Your task to perform on an android device: Clear the cart on walmart. Add "usb-b" to the cart on walmart Image 0: 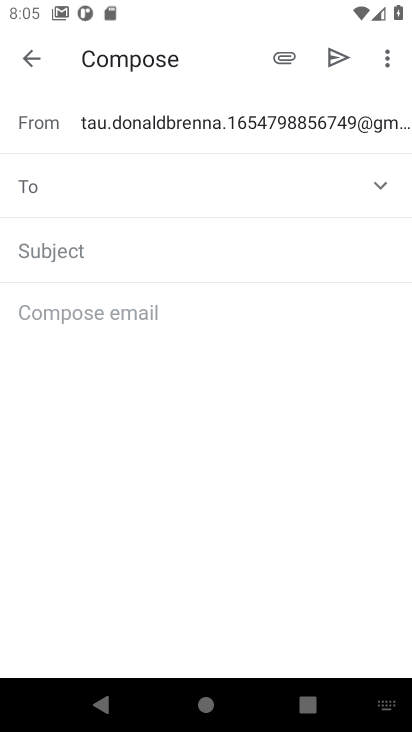
Step 0: press home button
Your task to perform on an android device: Clear the cart on walmart. Add "usb-b" to the cart on walmart Image 1: 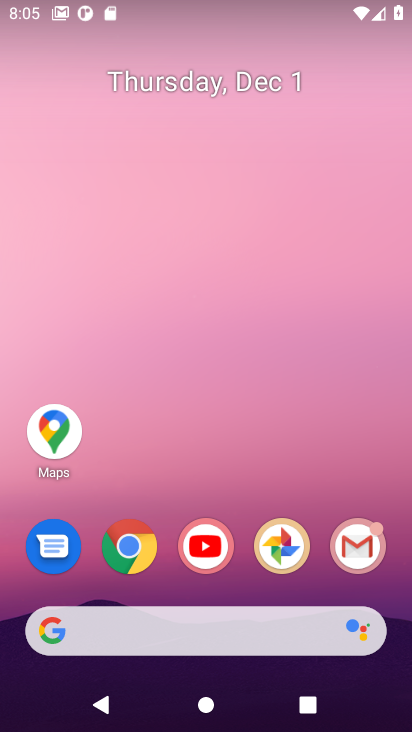
Step 1: click (127, 539)
Your task to perform on an android device: Clear the cart on walmart. Add "usb-b" to the cart on walmart Image 2: 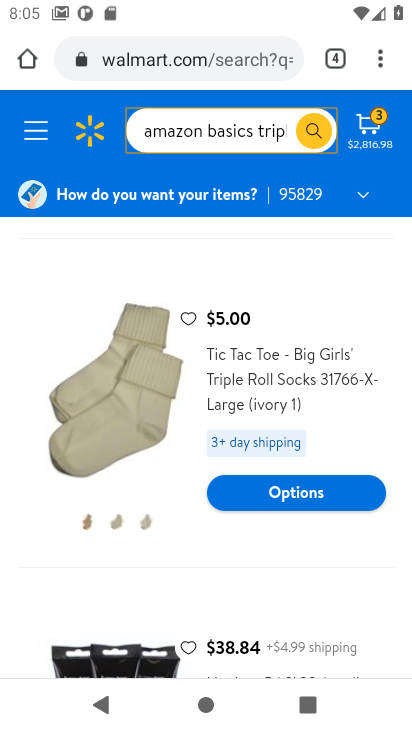
Step 2: click (370, 136)
Your task to perform on an android device: Clear the cart on walmart. Add "usb-b" to the cart on walmart Image 3: 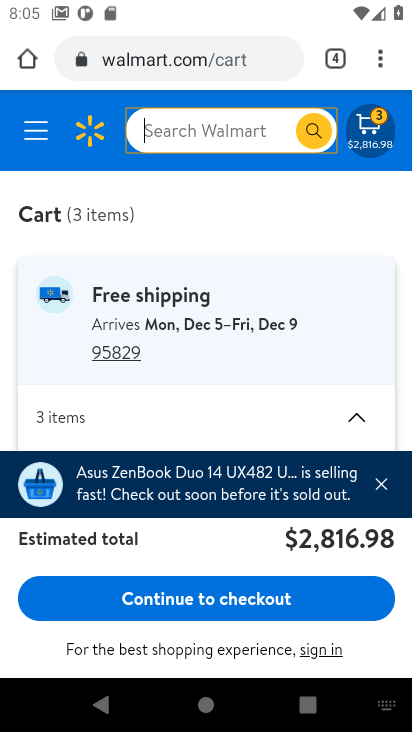
Step 3: drag from (189, 346) to (194, 140)
Your task to perform on an android device: Clear the cart on walmart. Add "usb-b" to the cart on walmart Image 4: 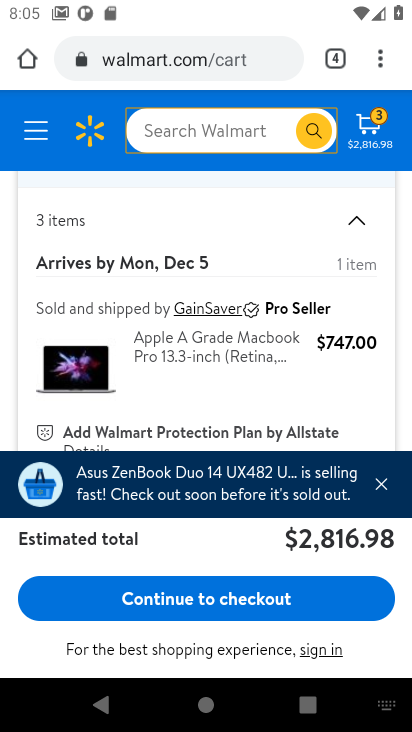
Step 4: drag from (179, 363) to (185, 195)
Your task to perform on an android device: Clear the cart on walmart. Add "usb-b" to the cart on walmart Image 5: 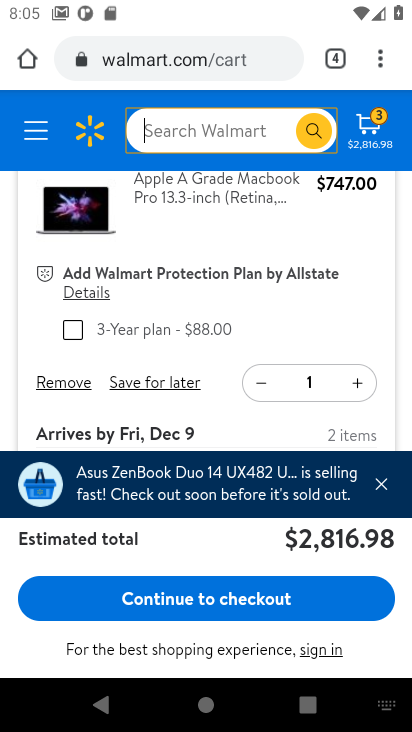
Step 5: click (59, 383)
Your task to perform on an android device: Clear the cart on walmart. Add "usb-b" to the cart on walmart Image 6: 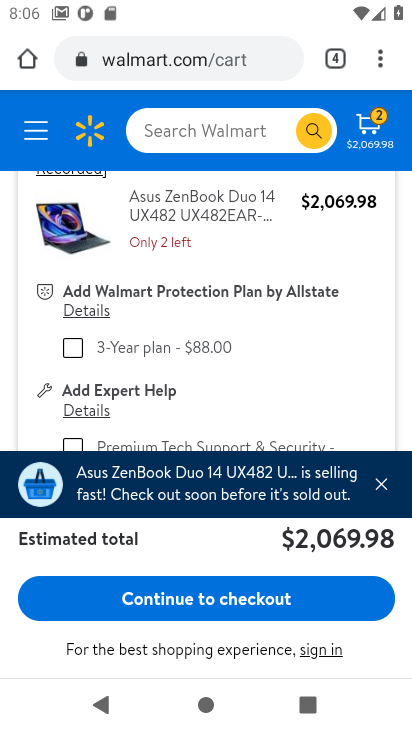
Step 6: drag from (226, 394) to (227, 247)
Your task to perform on an android device: Clear the cart on walmart. Add "usb-b" to the cart on walmart Image 7: 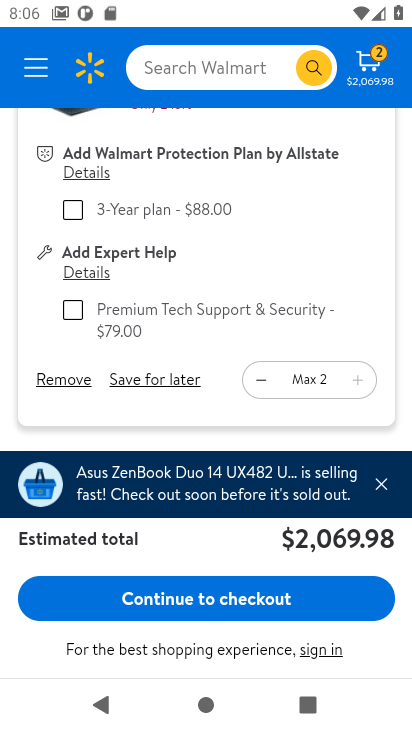
Step 7: click (57, 381)
Your task to perform on an android device: Clear the cart on walmart. Add "usb-b" to the cart on walmart Image 8: 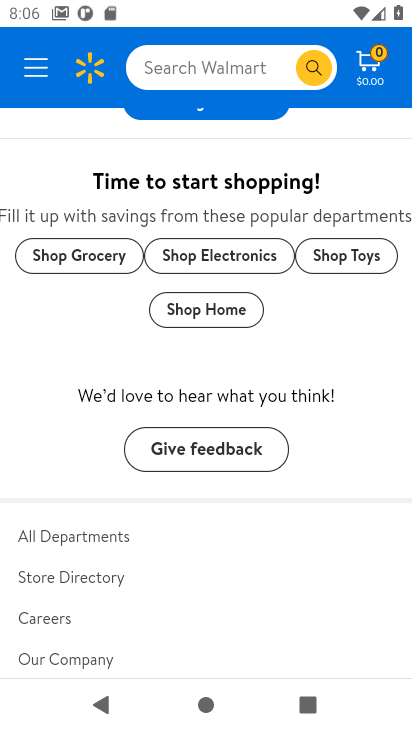
Step 8: click (190, 74)
Your task to perform on an android device: Clear the cart on walmart. Add "usb-b" to the cart on walmart Image 9: 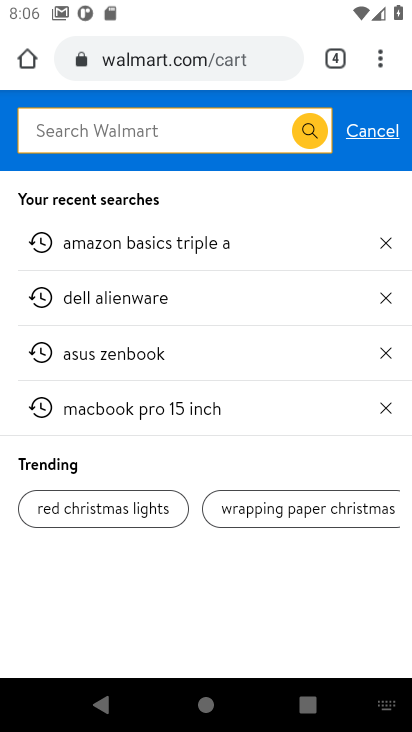
Step 9: type "usb-b"
Your task to perform on an android device: Clear the cart on walmart. Add "usb-b" to the cart on walmart Image 10: 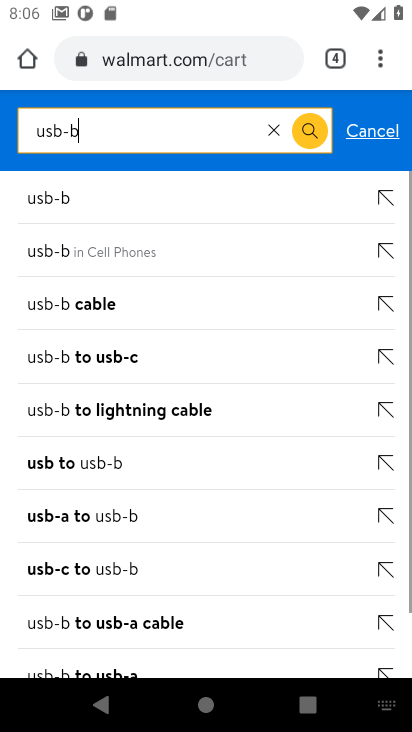
Step 10: click (51, 204)
Your task to perform on an android device: Clear the cart on walmart. Add "usb-b" to the cart on walmart Image 11: 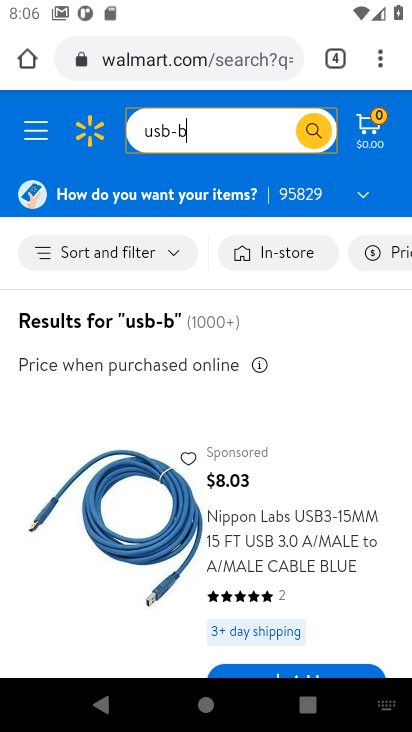
Step 11: drag from (178, 539) to (179, 411)
Your task to perform on an android device: Clear the cart on walmart. Add "usb-b" to the cart on walmart Image 12: 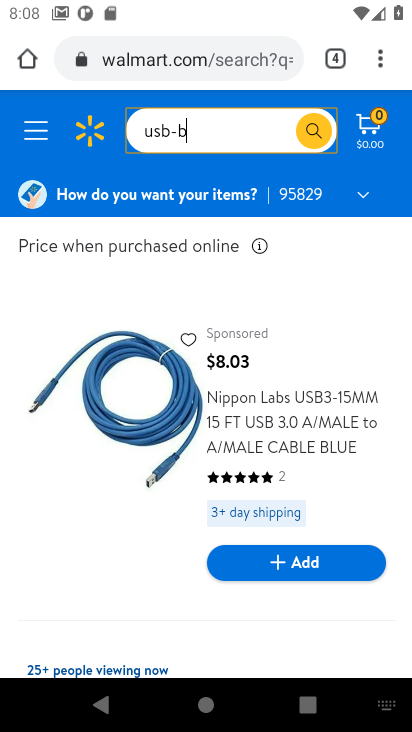
Step 12: drag from (152, 427) to (165, 317)
Your task to perform on an android device: Clear the cart on walmart. Add "usb-b" to the cart on walmart Image 13: 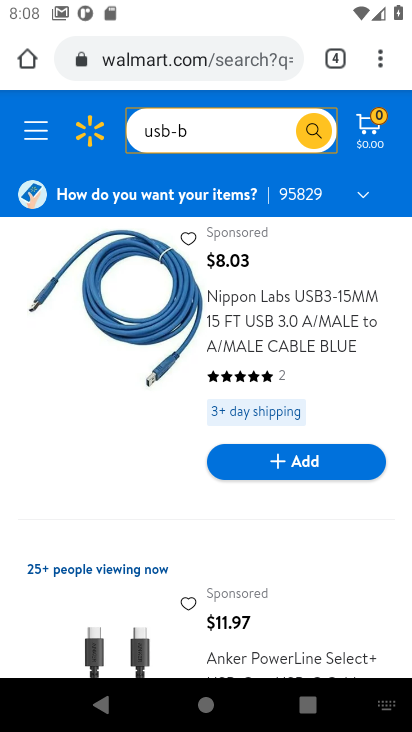
Step 13: drag from (141, 448) to (155, 253)
Your task to perform on an android device: Clear the cart on walmart. Add "usb-b" to the cart on walmart Image 14: 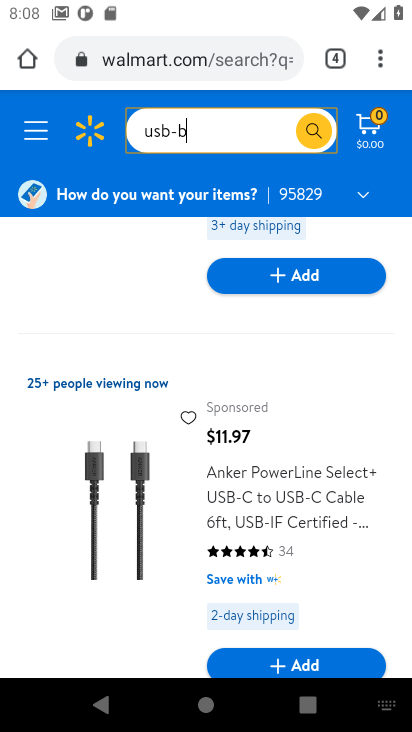
Step 14: drag from (131, 443) to (131, 260)
Your task to perform on an android device: Clear the cart on walmart. Add "usb-b" to the cart on walmart Image 15: 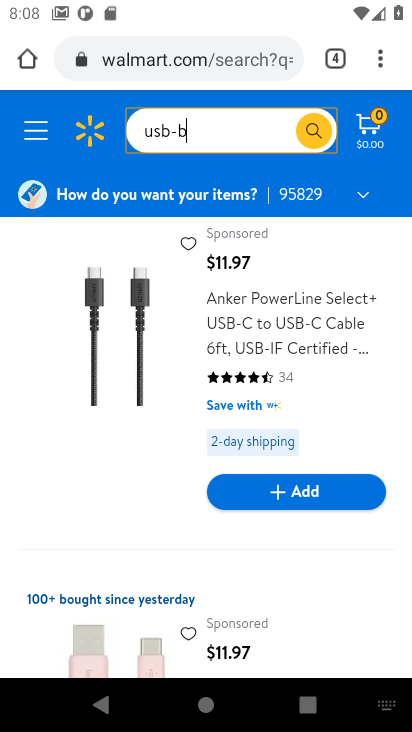
Step 15: drag from (145, 488) to (133, 221)
Your task to perform on an android device: Clear the cart on walmart. Add "usb-b" to the cart on walmart Image 16: 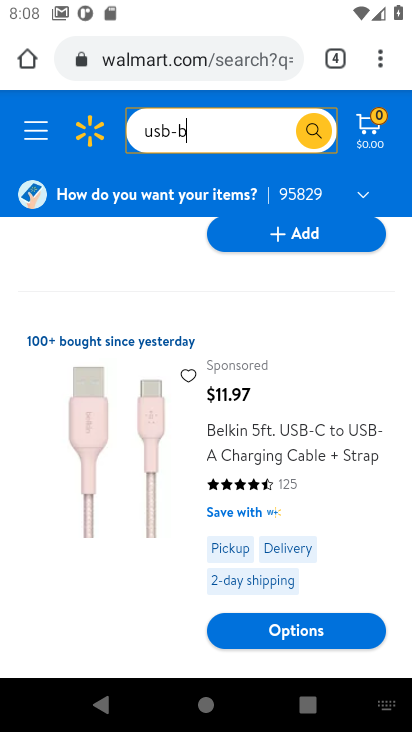
Step 16: drag from (122, 455) to (129, 289)
Your task to perform on an android device: Clear the cart on walmart. Add "usb-b" to the cart on walmart Image 17: 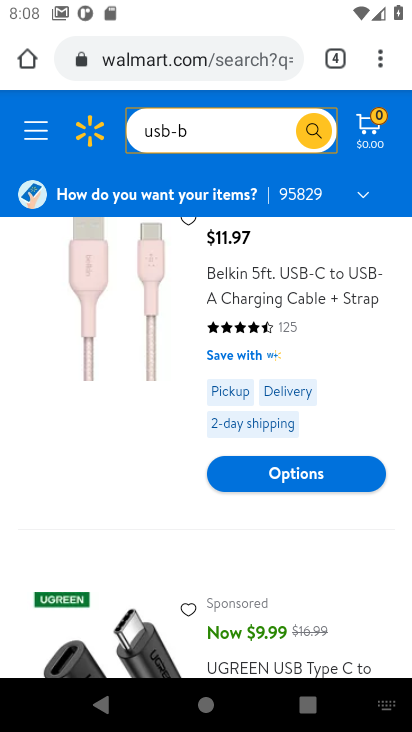
Step 17: drag from (129, 462) to (123, 258)
Your task to perform on an android device: Clear the cart on walmart. Add "usb-b" to the cart on walmart Image 18: 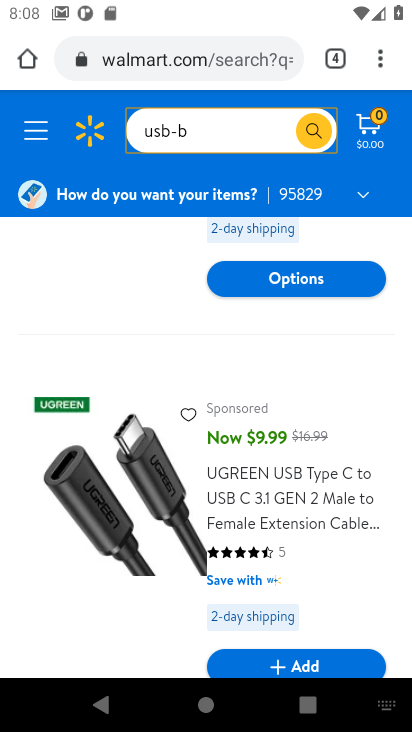
Step 18: drag from (101, 470) to (105, 236)
Your task to perform on an android device: Clear the cart on walmart. Add "usb-b" to the cart on walmart Image 19: 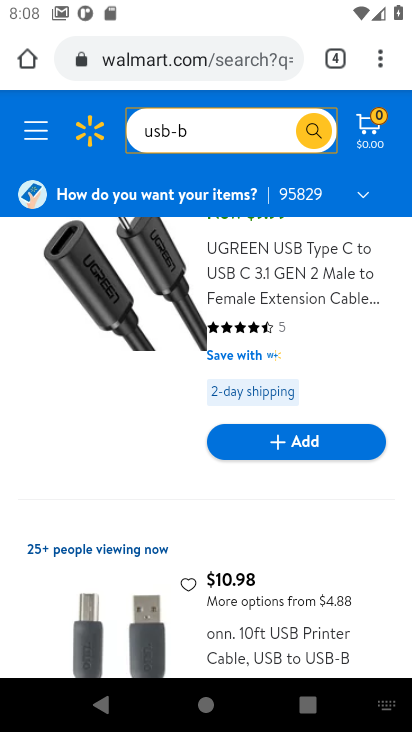
Step 19: drag from (100, 502) to (111, 266)
Your task to perform on an android device: Clear the cart on walmart. Add "usb-b" to the cart on walmart Image 20: 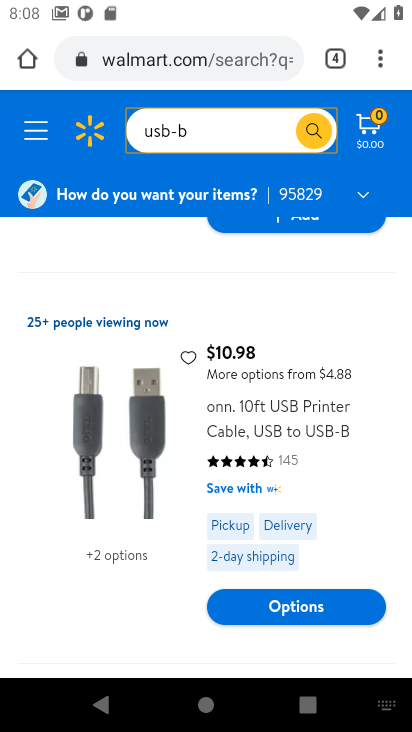
Step 20: click (338, 465)
Your task to perform on an android device: Clear the cart on walmart. Add "usb-b" to the cart on walmart Image 21: 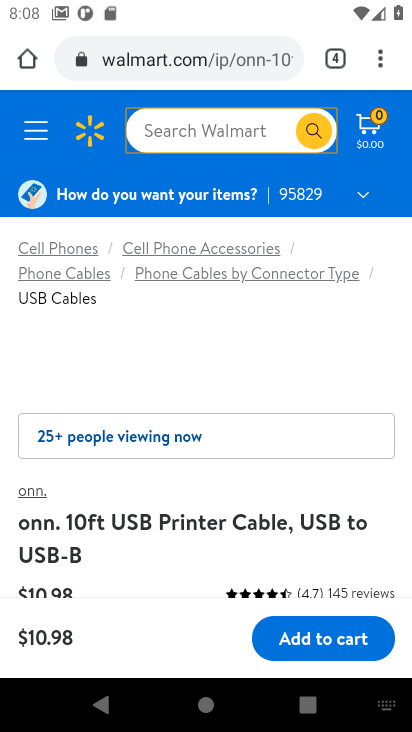
Step 21: click (321, 637)
Your task to perform on an android device: Clear the cart on walmart. Add "usb-b" to the cart on walmart Image 22: 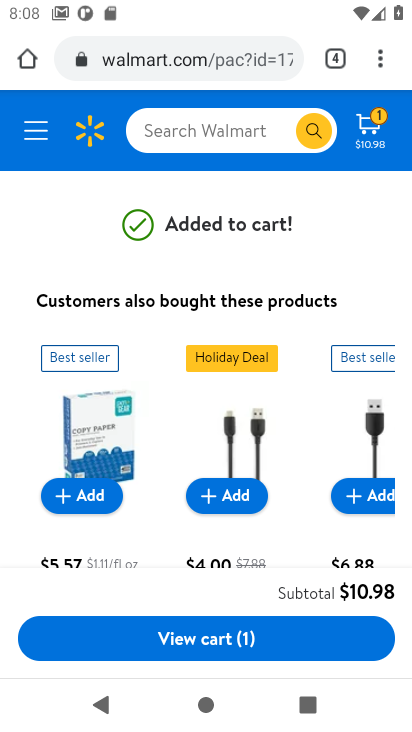
Step 22: task complete